Your task to perform on an android device: What is the news today? Image 0: 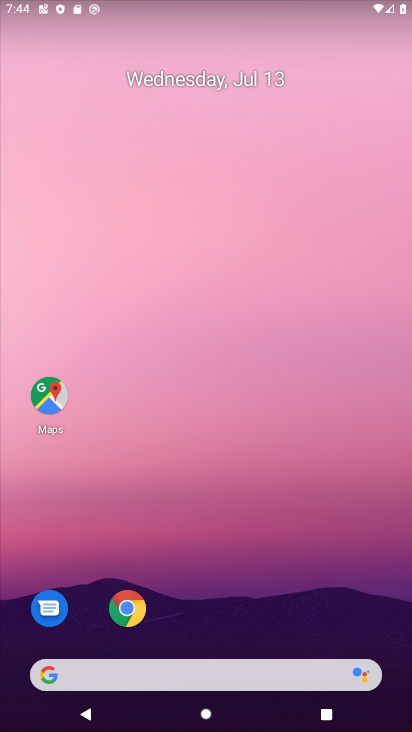
Step 0: drag from (205, 659) to (207, 84)
Your task to perform on an android device: What is the news today? Image 1: 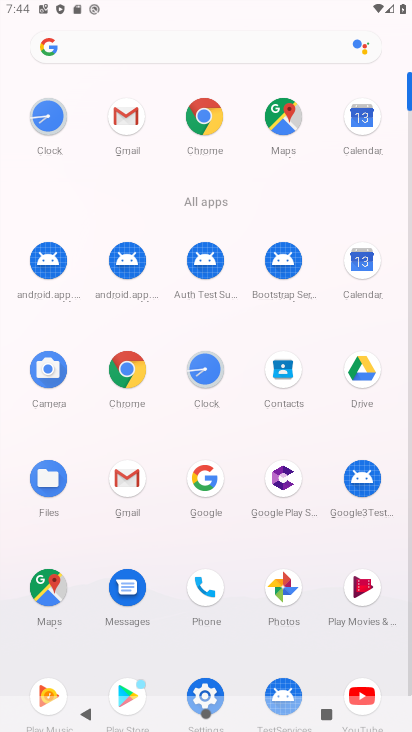
Step 1: click (195, 487)
Your task to perform on an android device: What is the news today? Image 2: 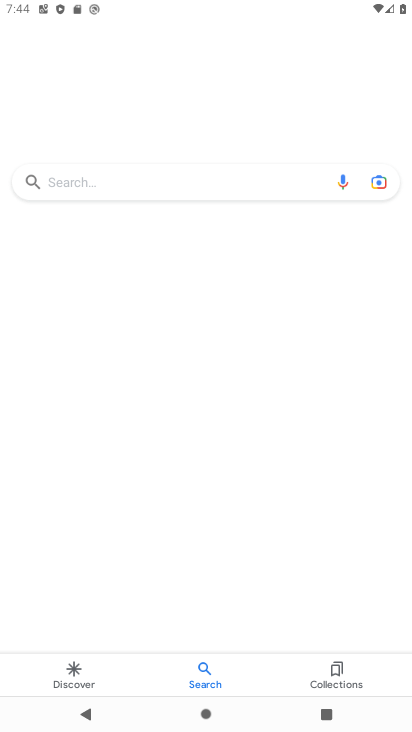
Step 2: click (110, 190)
Your task to perform on an android device: What is the news today? Image 3: 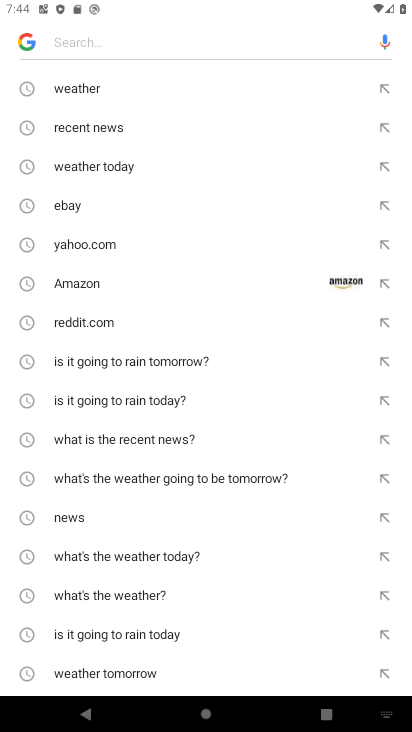
Step 3: click (83, 133)
Your task to perform on an android device: What is the news today? Image 4: 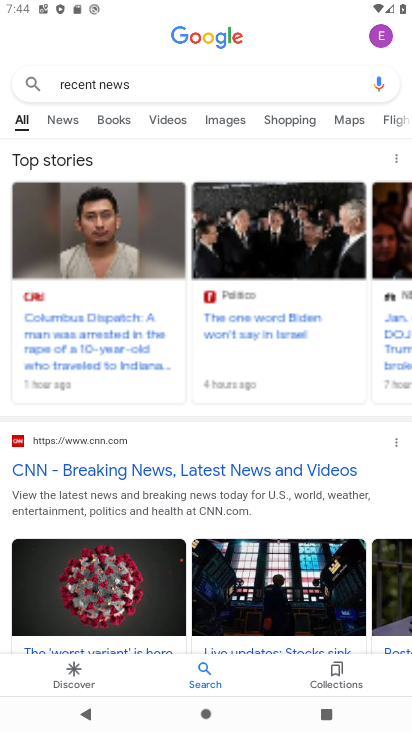
Step 4: click (56, 124)
Your task to perform on an android device: What is the news today? Image 5: 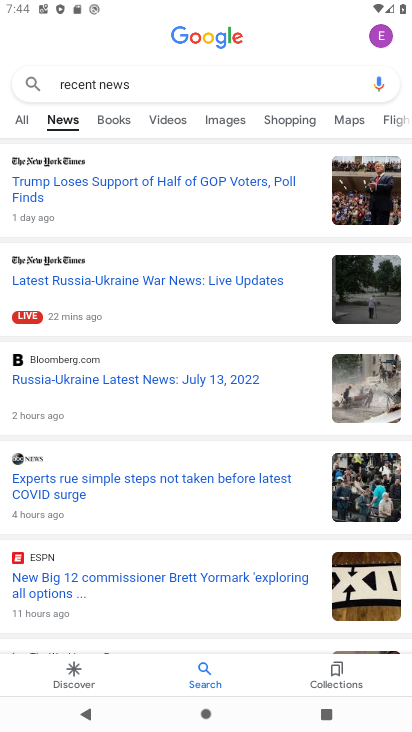
Step 5: task complete